Your task to perform on an android device: turn notification dots on Image 0: 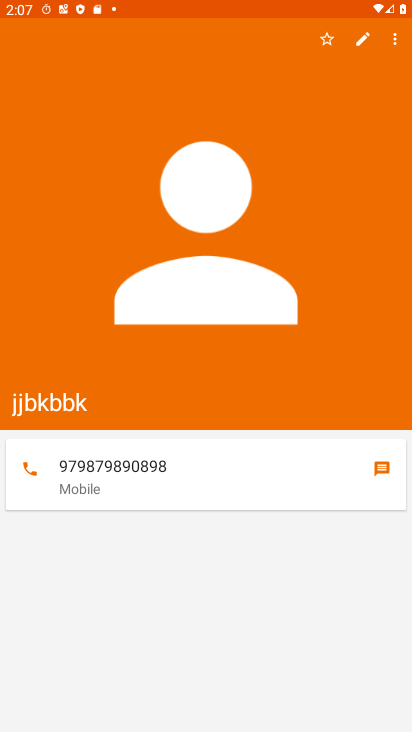
Step 0: press home button
Your task to perform on an android device: turn notification dots on Image 1: 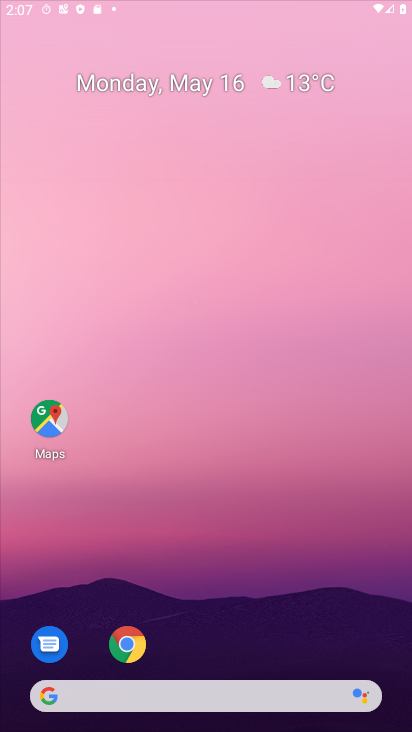
Step 1: drag from (175, 683) to (235, 192)
Your task to perform on an android device: turn notification dots on Image 2: 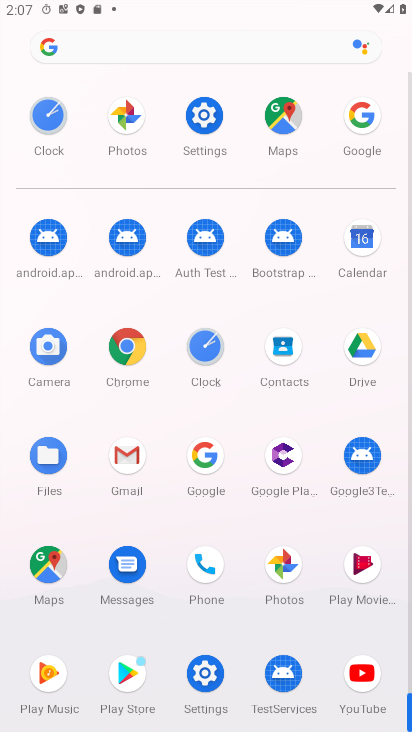
Step 2: click (195, 128)
Your task to perform on an android device: turn notification dots on Image 3: 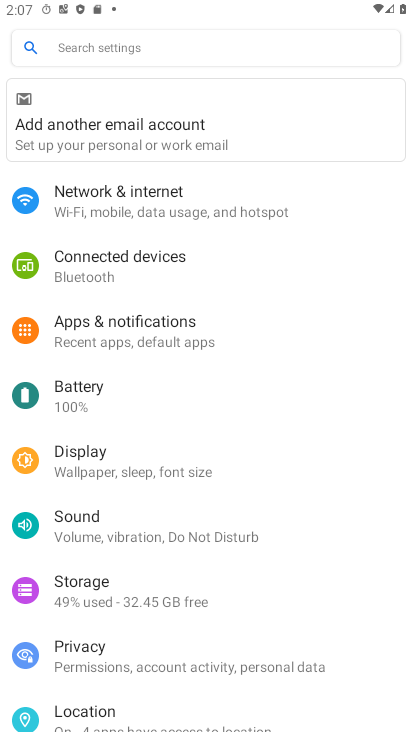
Step 3: drag from (180, 504) to (195, 311)
Your task to perform on an android device: turn notification dots on Image 4: 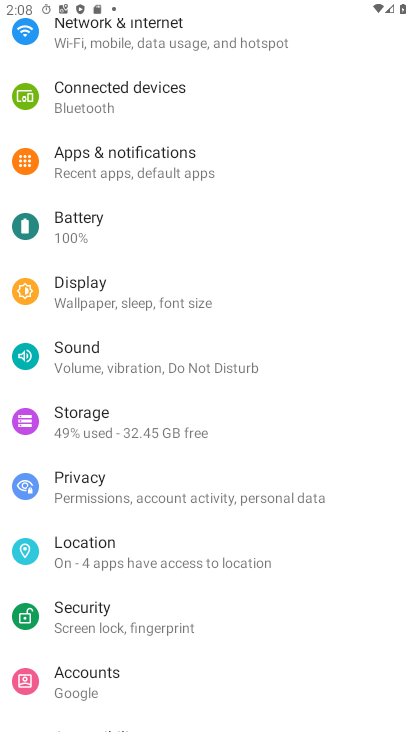
Step 4: click (123, 179)
Your task to perform on an android device: turn notification dots on Image 5: 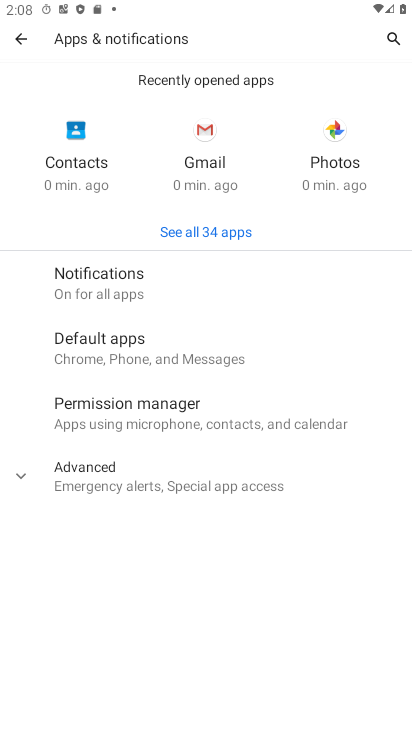
Step 5: click (128, 292)
Your task to perform on an android device: turn notification dots on Image 6: 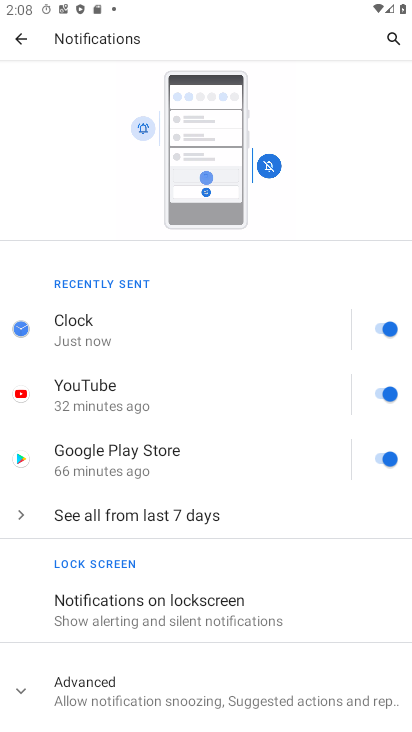
Step 6: drag from (162, 506) to (188, 232)
Your task to perform on an android device: turn notification dots on Image 7: 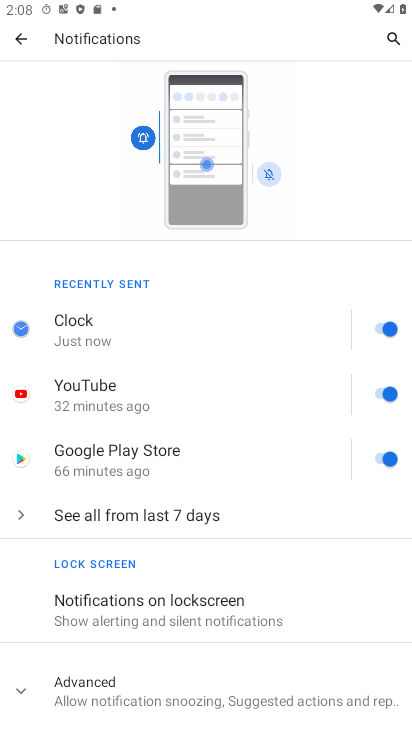
Step 7: drag from (168, 586) to (175, 262)
Your task to perform on an android device: turn notification dots on Image 8: 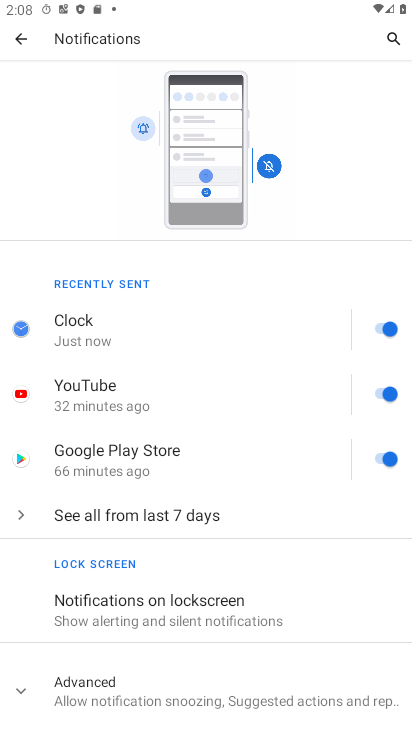
Step 8: drag from (109, 533) to (104, 59)
Your task to perform on an android device: turn notification dots on Image 9: 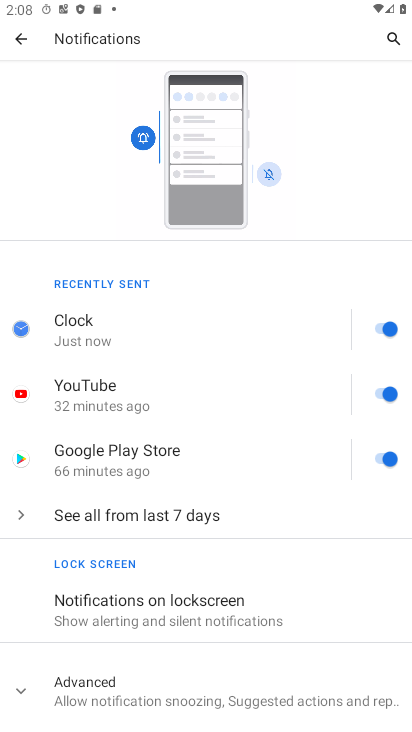
Step 9: click (125, 676)
Your task to perform on an android device: turn notification dots on Image 10: 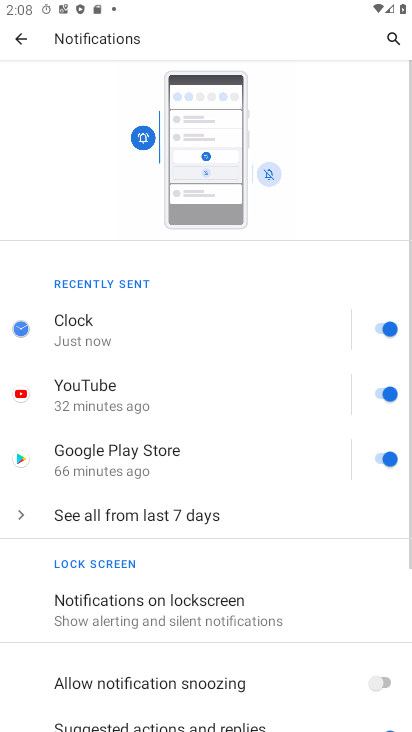
Step 10: task complete